Your task to perform on an android device: manage bookmarks in the chrome app Image 0: 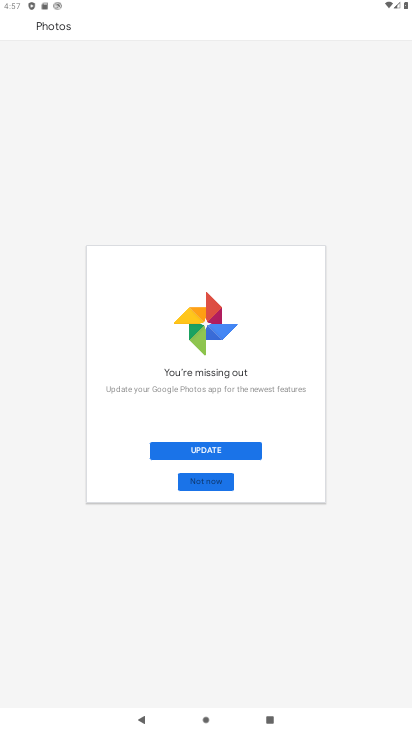
Step 0: press home button
Your task to perform on an android device: manage bookmarks in the chrome app Image 1: 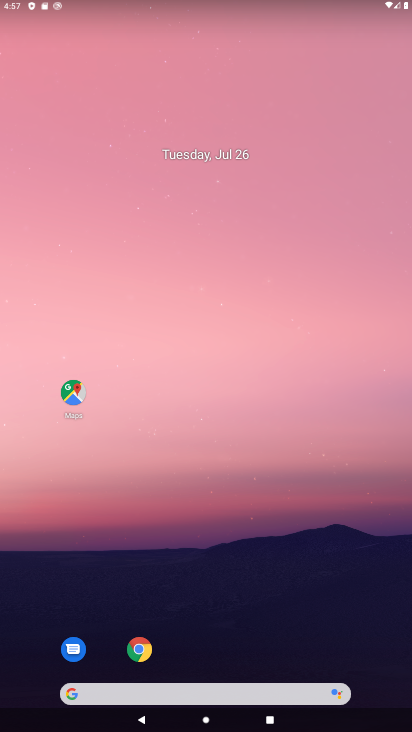
Step 1: click (140, 652)
Your task to perform on an android device: manage bookmarks in the chrome app Image 2: 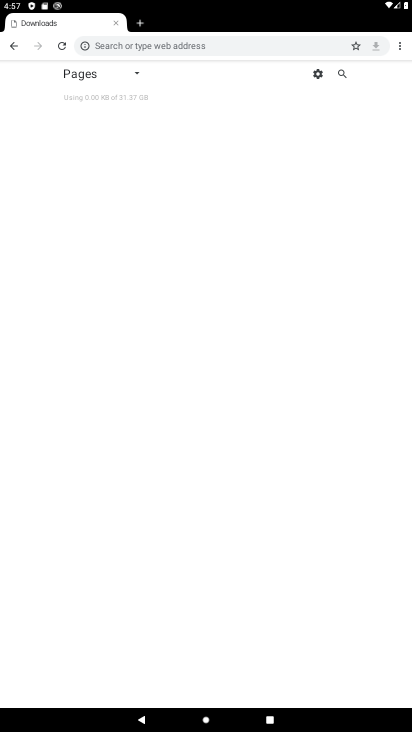
Step 2: click (401, 45)
Your task to perform on an android device: manage bookmarks in the chrome app Image 3: 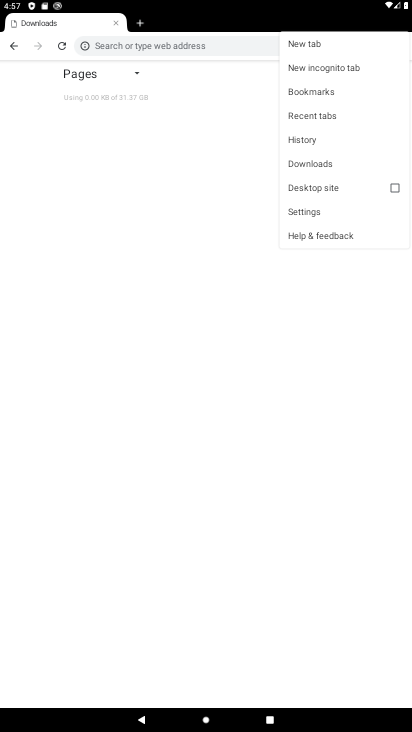
Step 3: click (360, 95)
Your task to perform on an android device: manage bookmarks in the chrome app Image 4: 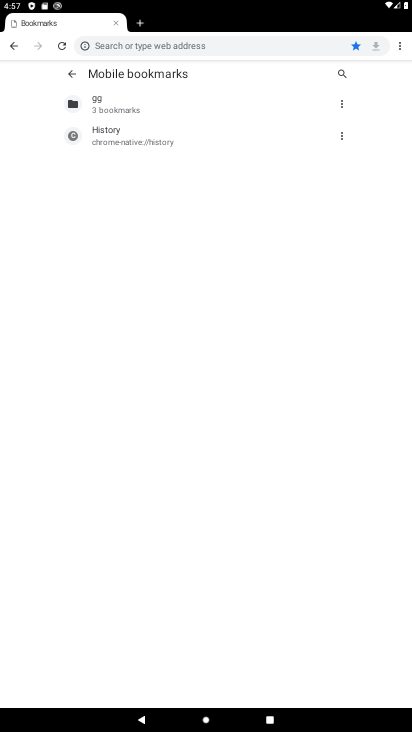
Step 4: click (168, 125)
Your task to perform on an android device: manage bookmarks in the chrome app Image 5: 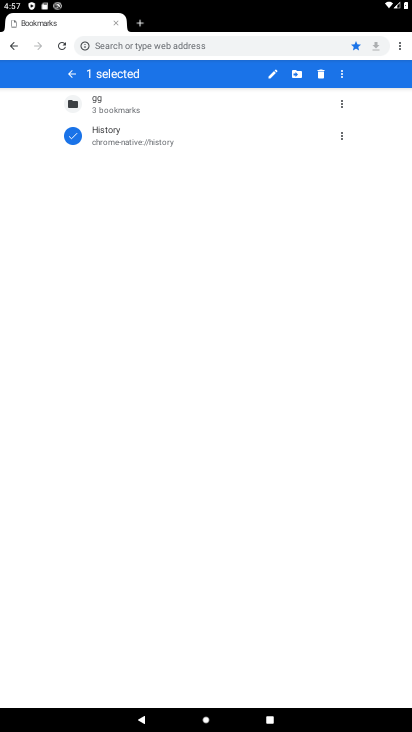
Step 5: click (295, 70)
Your task to perform on an android device: manage bookmarks in the chrome app Image 6: 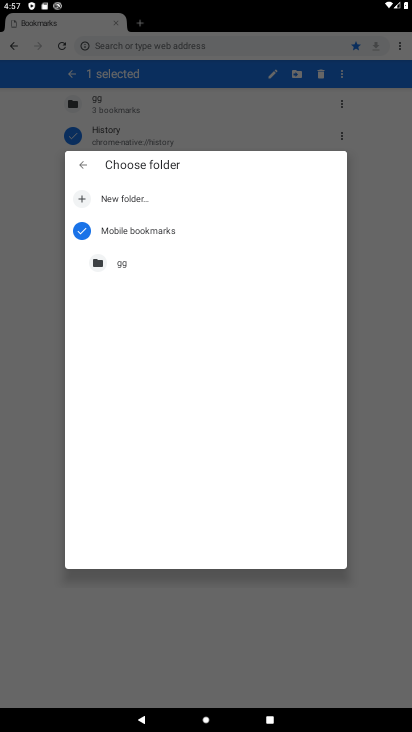
Step 6: click (155, 261)
Your task to perform on an android device: manage bookmarks in the chrome app Image 7: 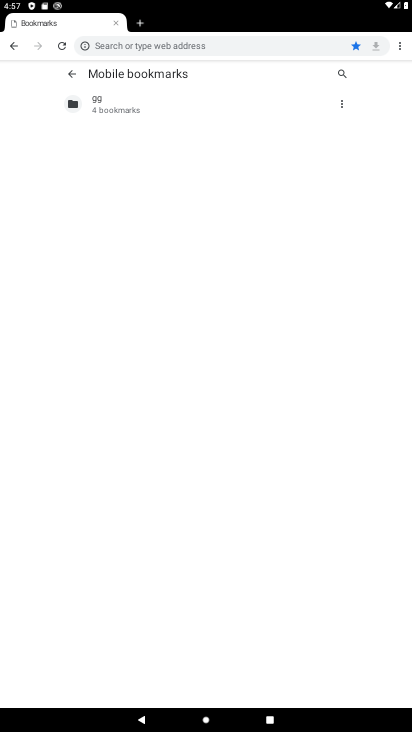
Step 7: task complete